Your task to perform on an android device: turn on wifi Image 0: 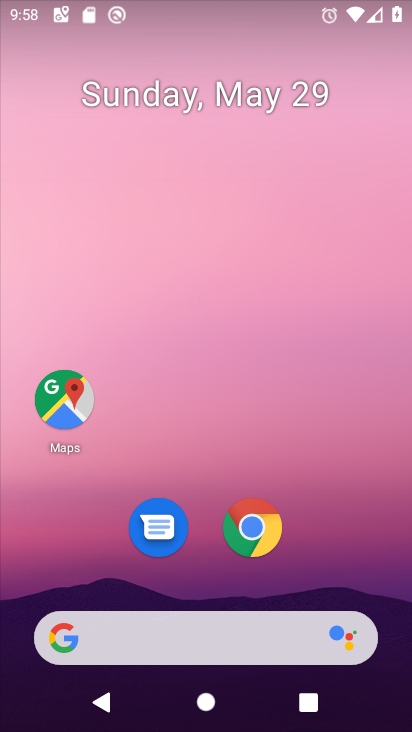
Step 0: press home button
Your task to perform on an android device: turn on wifi Image 1: 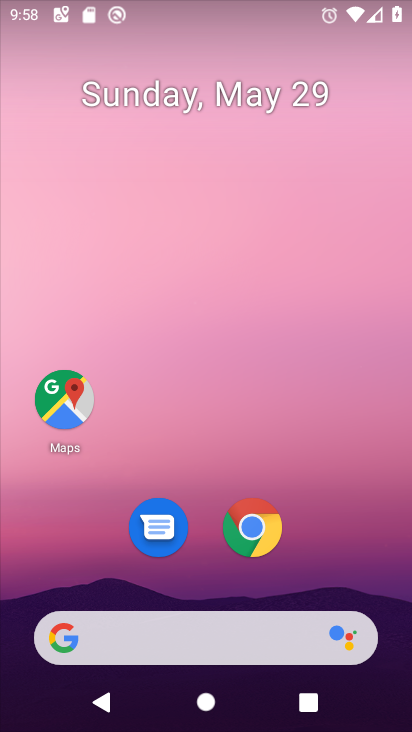
Step 1: drag from (206, 582) to (216, 57)
Your task to perform on an android device: turn on wifi Image 2: 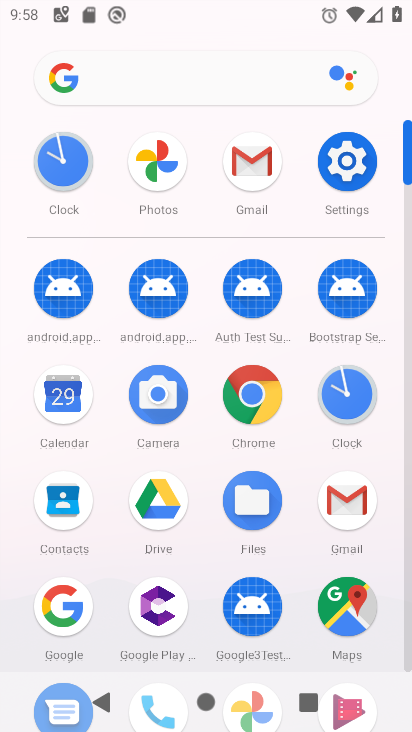
Step 2: click (346, 164)
Your task to perform on an android device: turn on wifi Image 3: 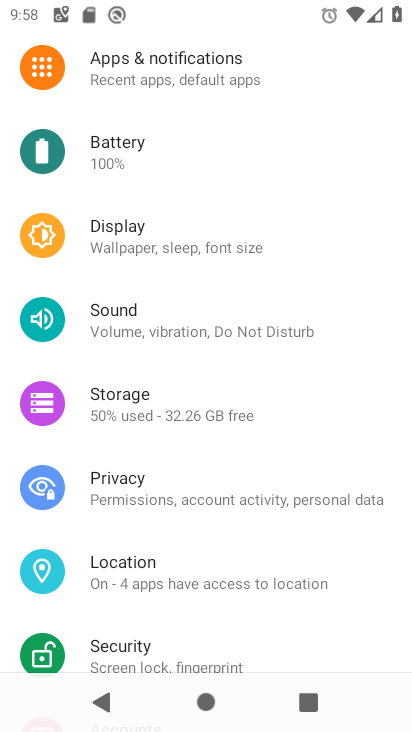
Step 3: drag from (183, 100) to (216, 725)
Your task to perform on an android device: turn on wifi Image 4: 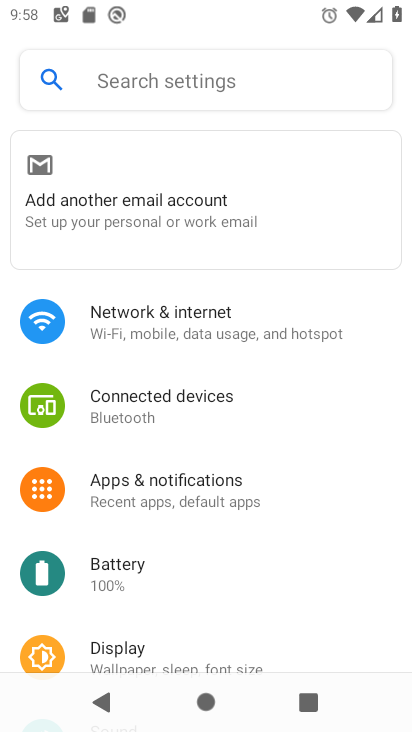
Step 4: click (185, 317)
Your task to perform on an android device: turn on wifi Image 5: 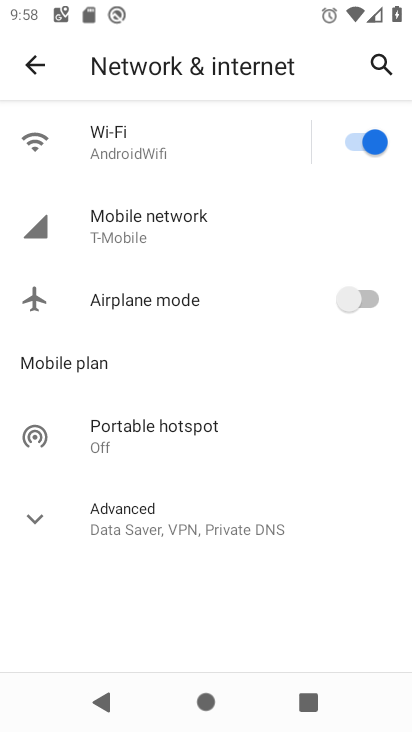
Step 5: task complete